Your task to perform on an android device: Open accessibility settings Image 0: 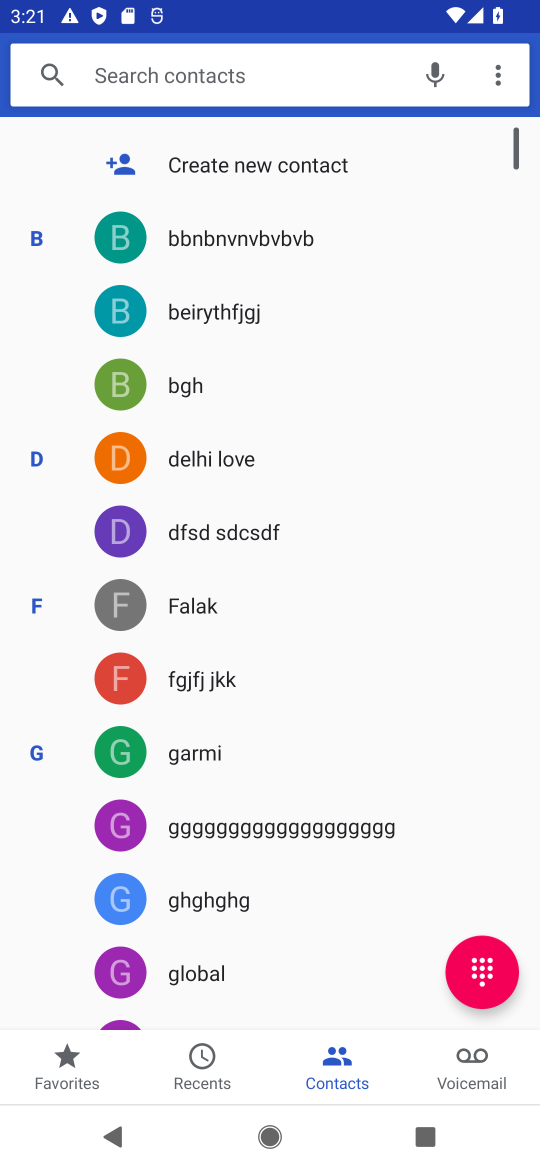
Step 0: press home button
Your task to perform on an android device: Open accessibility settings Image 1: 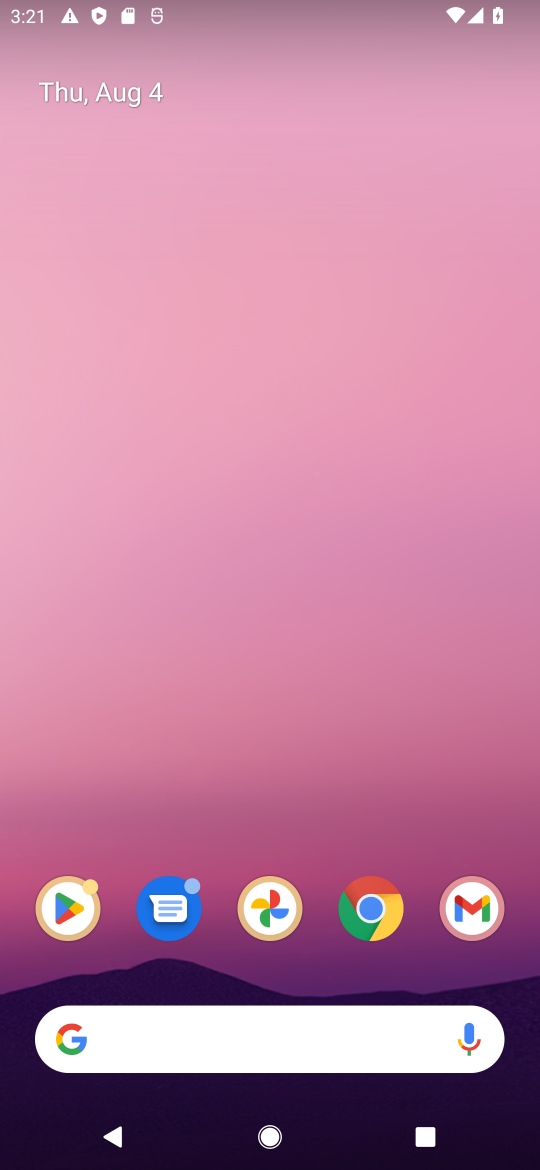
Step 1: drag from (291, 687) to (378, 31)
Your task to perform on an android device: Open accessibility settings Image 2: 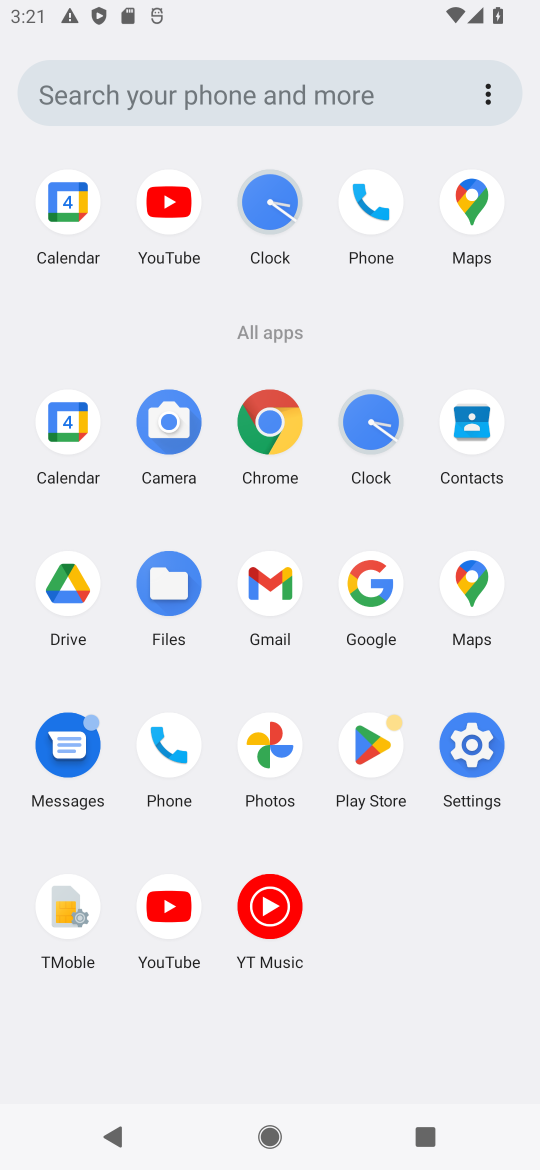
Step 2: click (485, 751)
Your task to perform on an android device: Open accessibility settings Image 3: 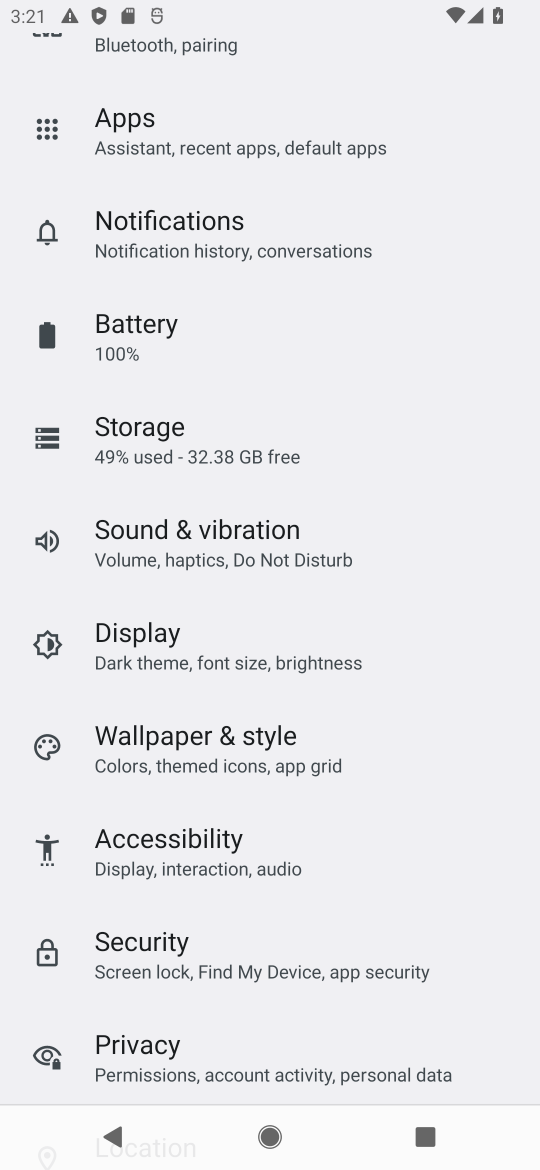
Step 3: click (161, 854)
Your task to perform on an android device: Open accessibility settings Image 4: 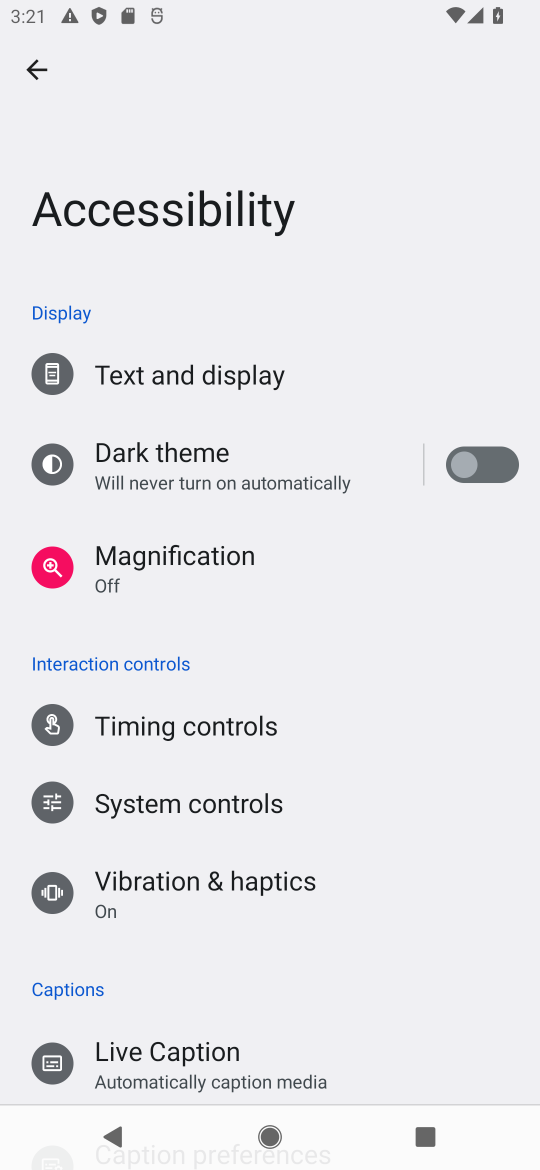
Step 4: task complete